Your task to perform on an android device: Play the last video I watched on Youtube Image 0: 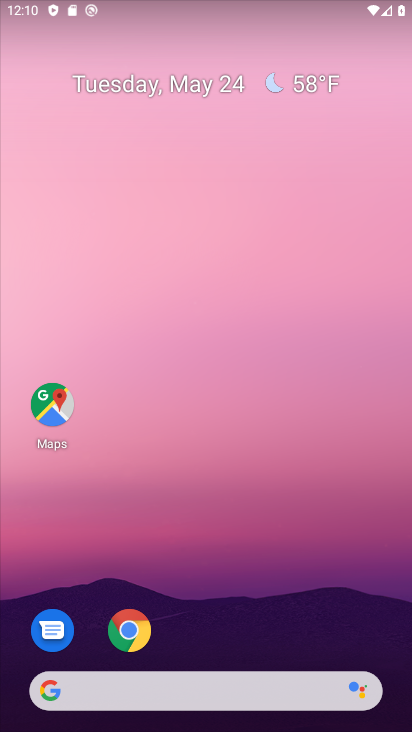
Step 0: drag from (248, 607) to (262, 156)
Your task to perform on an android device: Play the last video I watched on Youtube Image 1: 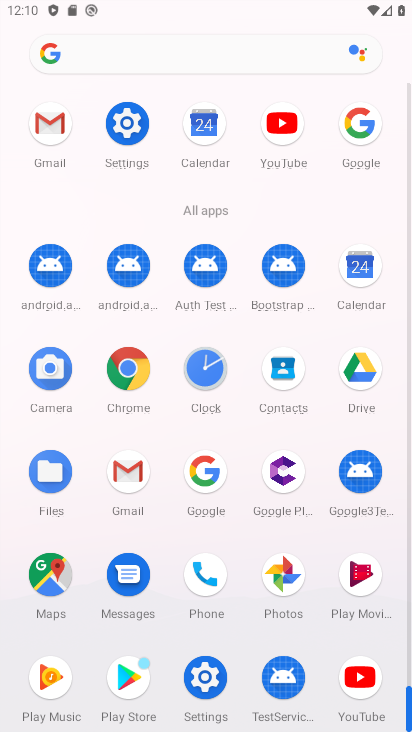
Step 1: click (279, 124)
Your task to perform on an android device: Play the last video I watched on Youtube Image 2: 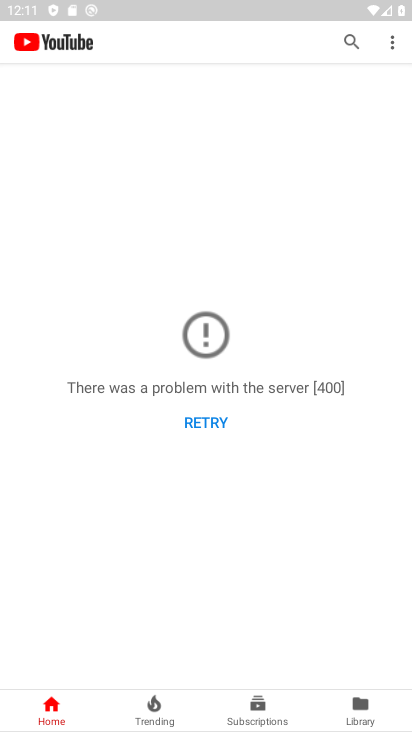
Step 2: click (218, 422)
Your task to perform on an android device: Play the last video I watched on Youtube Image 3: 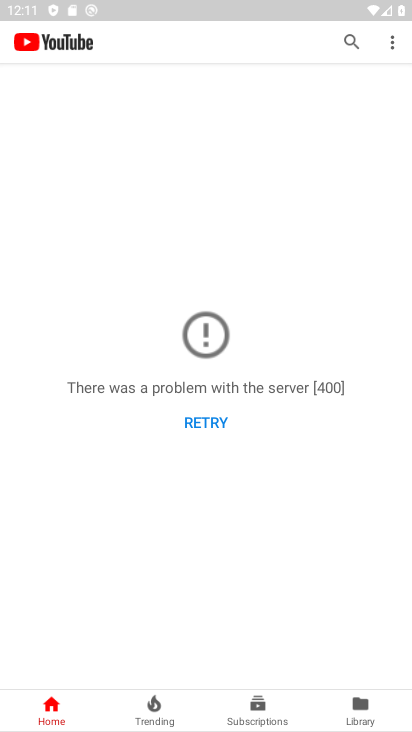
Step 3: click (218, 421)
Your task to perform on an android device: Play the last video I watched on Youtube Image 4: 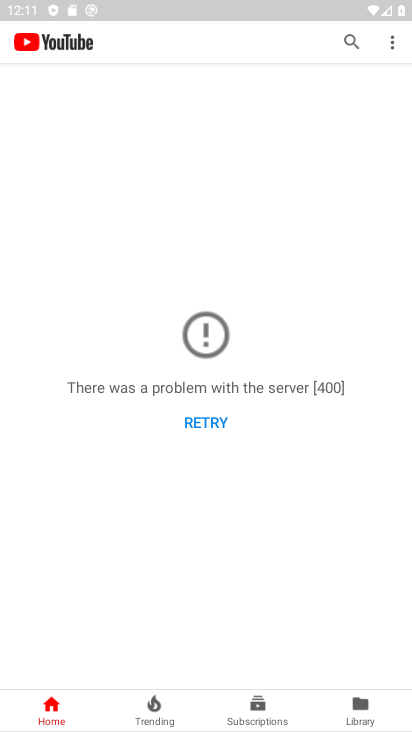
Step 4: task complete